Your task to perform on an android device: read, delete, or share a saved page in the chrome app Image 0: 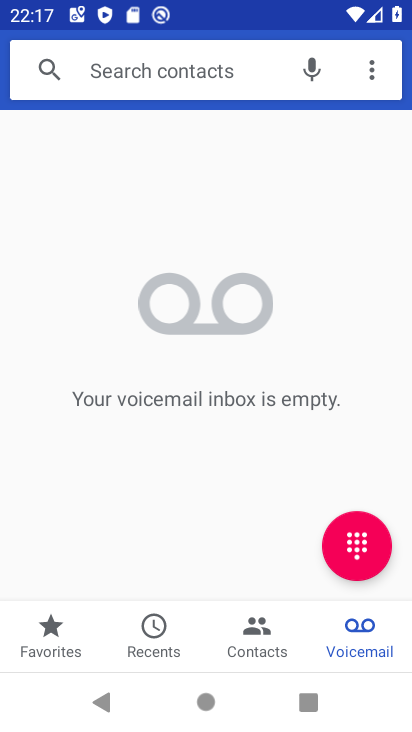
Step 0: press home button
Your task to perform on an android device: read, delete, or share a saved page in the chrome app Image 1: 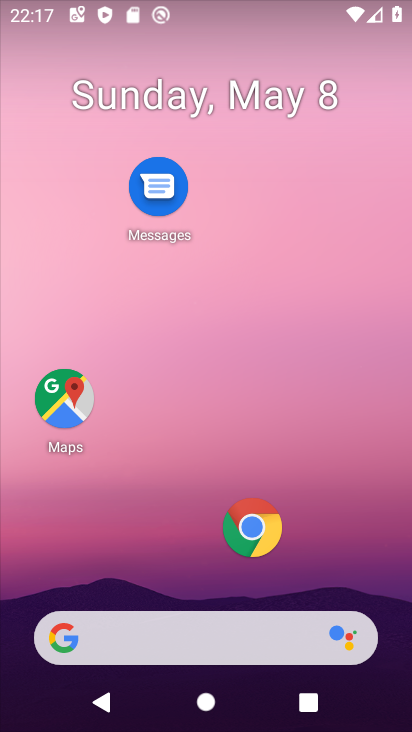
Step 1: click (249, 528)
Your task to perform on an android device: read, delete, or share a saved page in the chrome app Image 2: 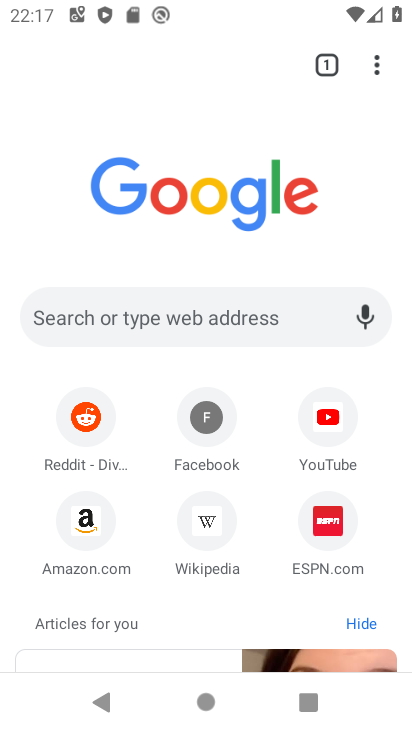
Step 2: click (369, 70)
Your task to perform on an android device: read, delete, or share a saved page in the chrome app Image 3: 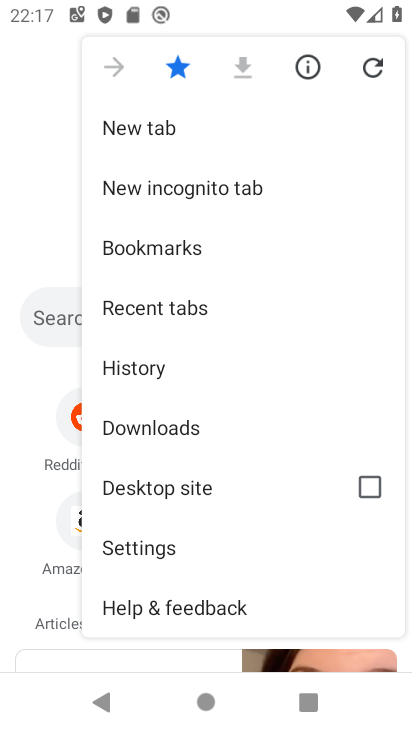
Step 3: click (180, 424)
Your task to perform on an android device: read, delete, or share a saved page in the chrome app Image 4: 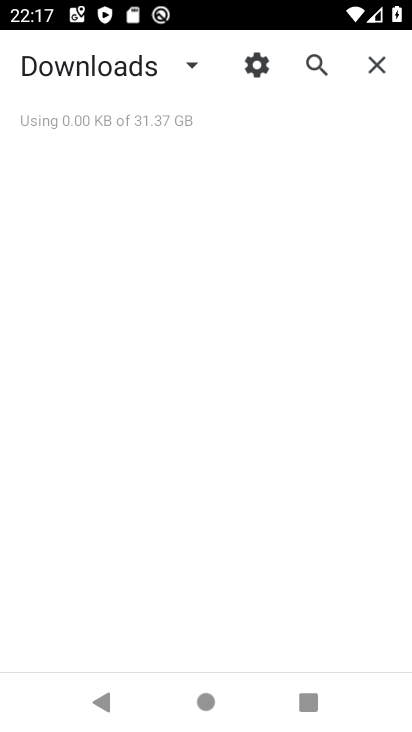
Step 4: task complete